Your task to perform on an android device: What's the weather today? Image 0: 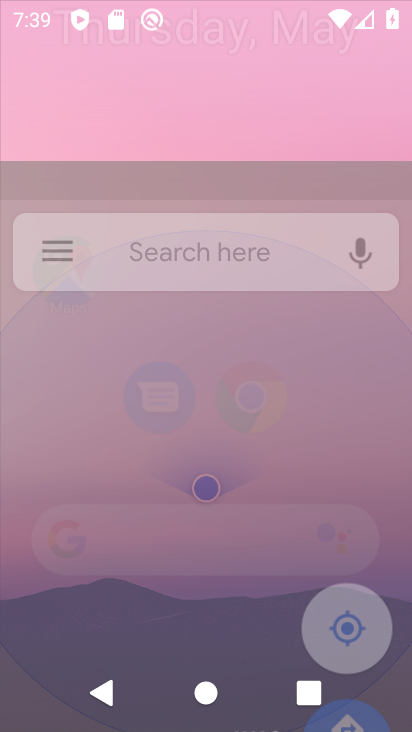
Step 0: drag from (260, 116) to (243, 48)
Your task to perform on an android device: What's the weather today? Image 1: 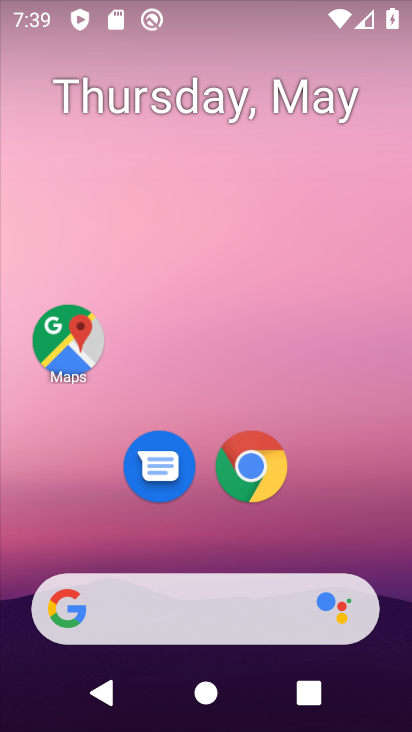
Step 1: drag from (366, 482) to (302, 70)
Your task to perform on an android device: What's the weather today? Image 2: 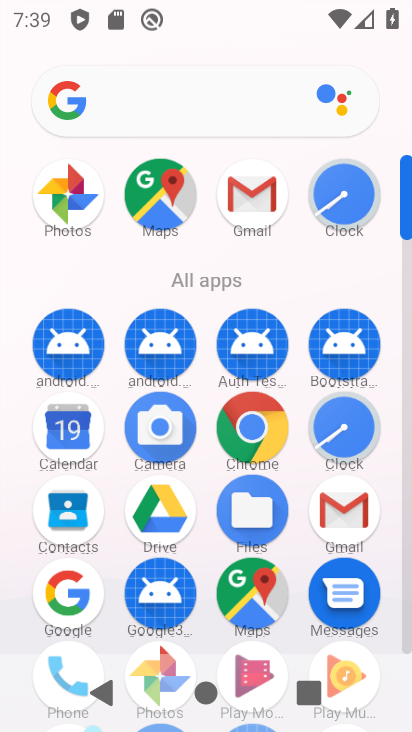
Step 2: drag from (21, 564) to (8, 212)
Your task to perform on an android device: What's the weather today? Image 3: 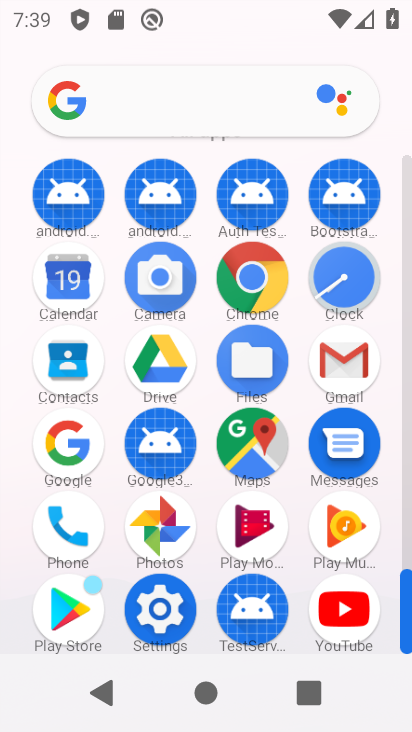
Step 3: click (347, 605)
Your task to perform on an android device: What's the weather today? Image 4: 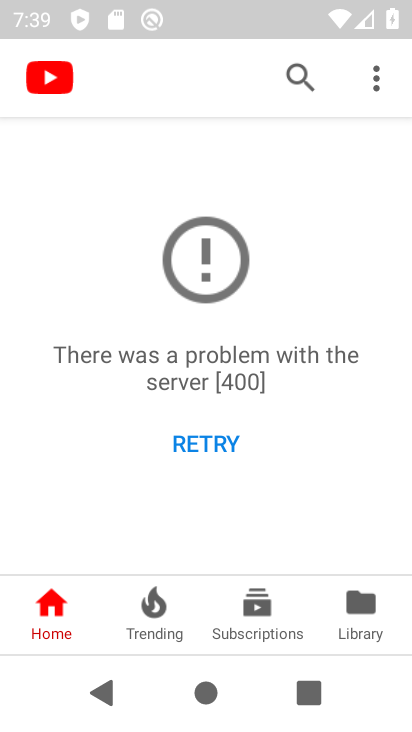
Step 4: click (374, 610)
Your task to perform on an android device: What's the weather today? Image 5: 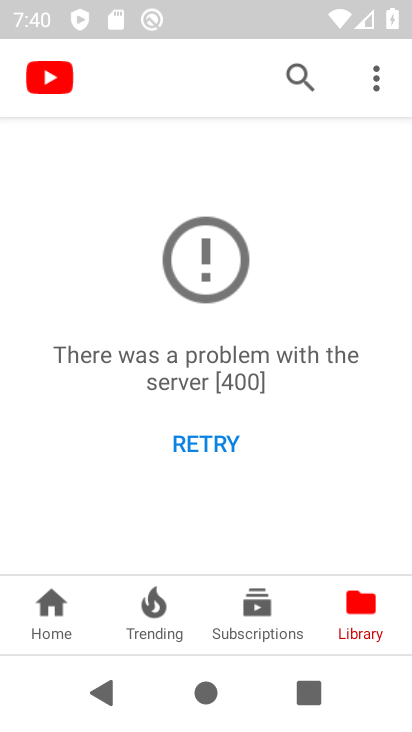
Step 5: task complete